Your task to perform on an android device: Go to calendar. Show me events next week Image 0: 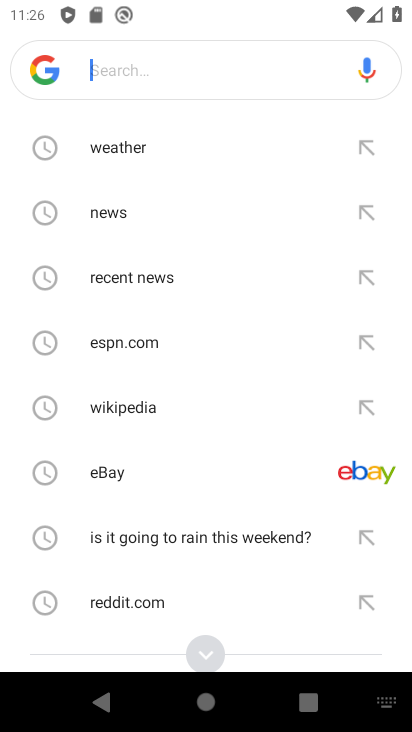
Step 0: press home button
Your task to perform on an android device: Go to calendar. Show me events next week Image 1: 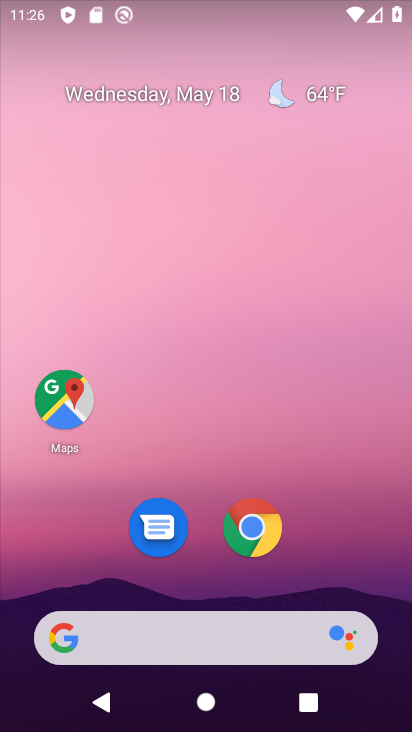
Step 1: drag from (197, 586) to (261, 66)
Your task to perform on an android device: Go to calendar. Show me events next week Image 2: 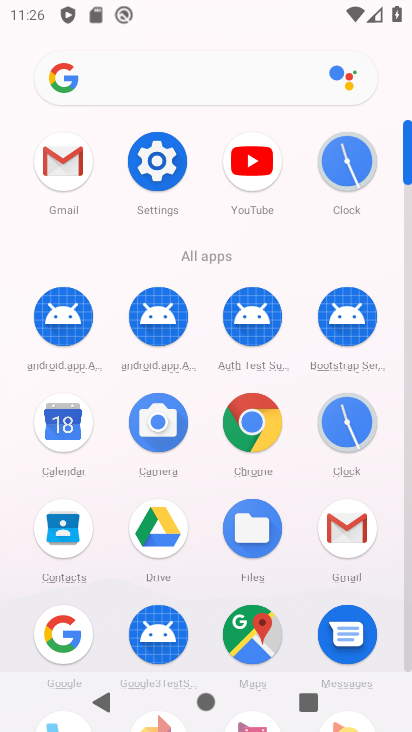
Step 2: click (63, 422)
Your task to perform on an android device: Go to calendar. Show me events next week Image 3: 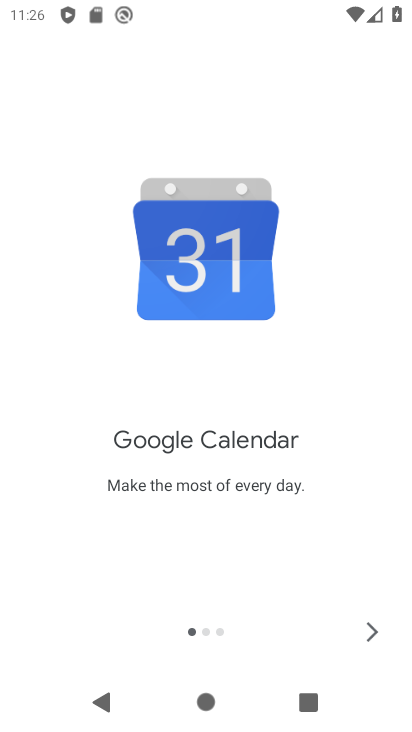
Step 3: click (371, 624)
Your task to perform on an android device: Go to calendar. Show me events next week Image 4: 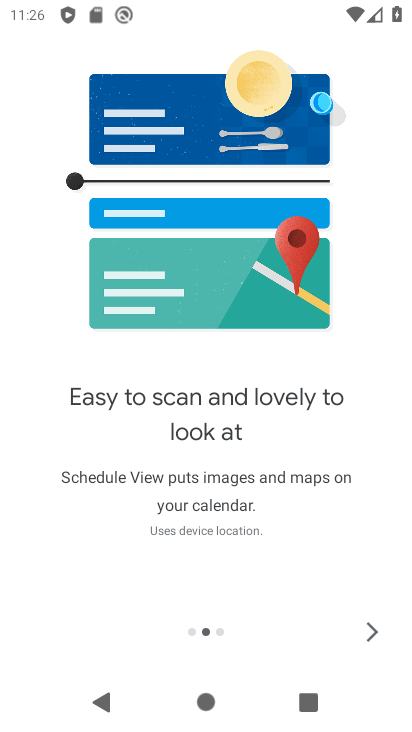
Step 4: click (368, 620)
Your task to perform on an android device: Go to calendar. Show me events next week Image 5: 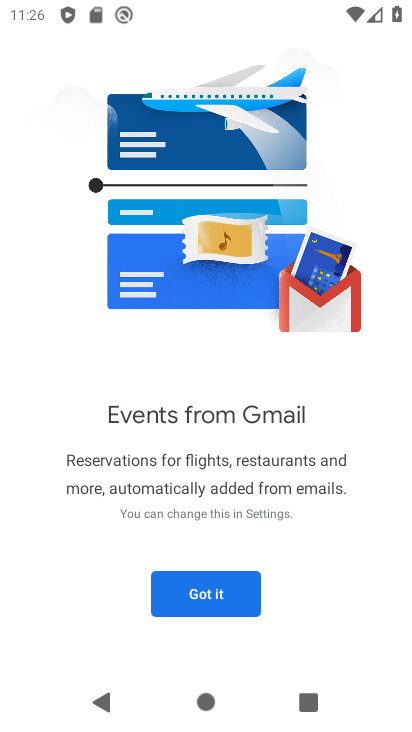
Step 5: click (227, 591)
Your task to perform on an android device: Go to calendar. Show me events next week Image 6: 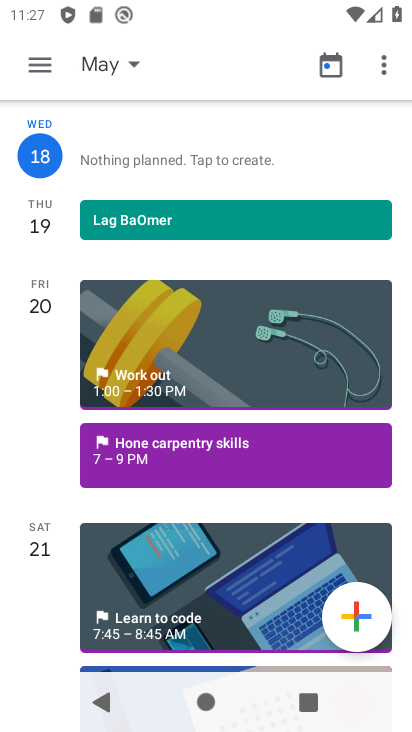
Step 6: click (103, 64)
Your task to perform on an android device: Go to calendar. Show me events next week Image 7: 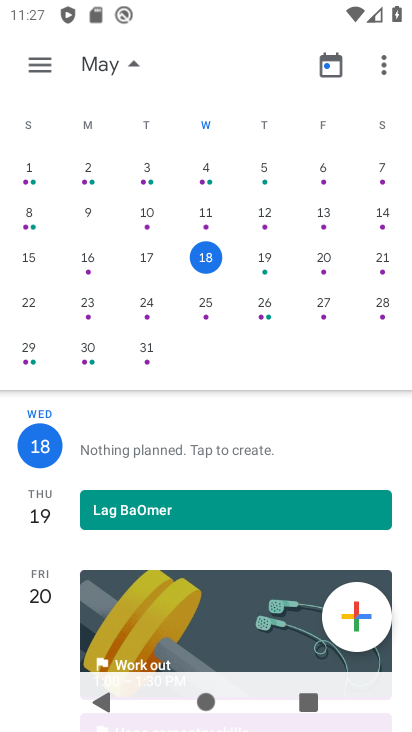
Step 7: click (84, 299)
Your task to perform on an android device: Go to calendar. Show me events next week Image 8: 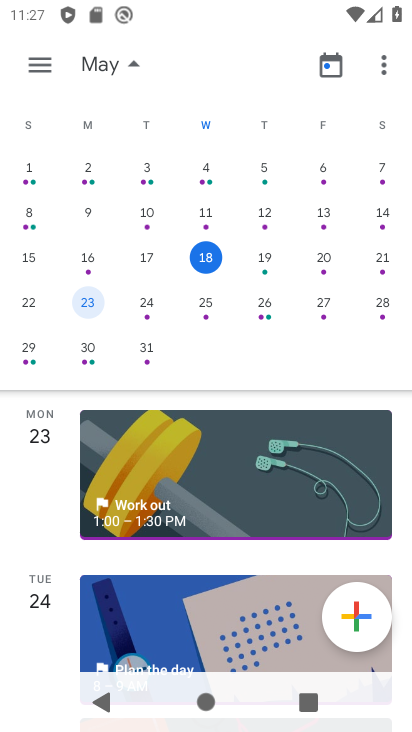
Step 8: drag from (181, 639) to (256, 258)
Your task to perform on an android device: Go to calendar. Show me events next week Image 9: 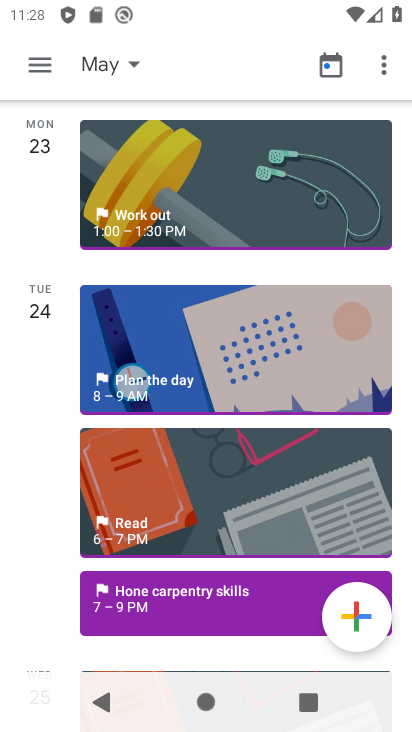
Step 9: click (159, 343)
Your task to perform on an android device: Go to calendar. Show me events next week Image 10: 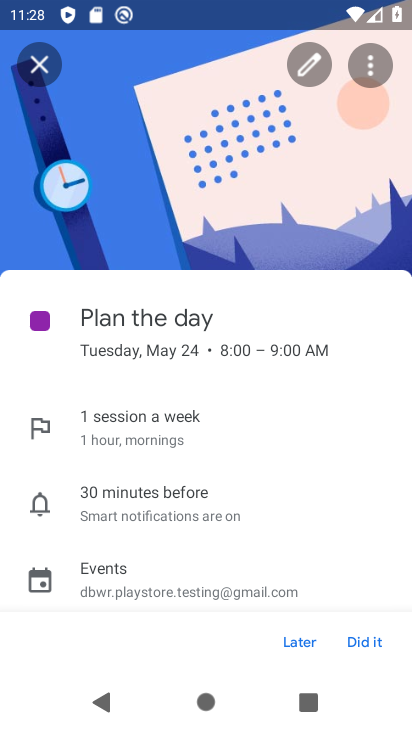
Step 10: task complete